Your task to perform on an android device: manage bookmarks in the chrome app Image 0: 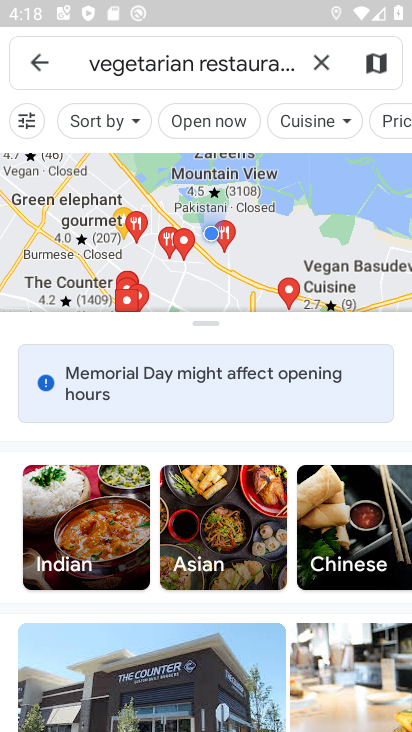
Step 0: drag from (243, 669) to (253, 206)
Your task to perform on an android device: manage bookmarks in the chrome app Image 1: 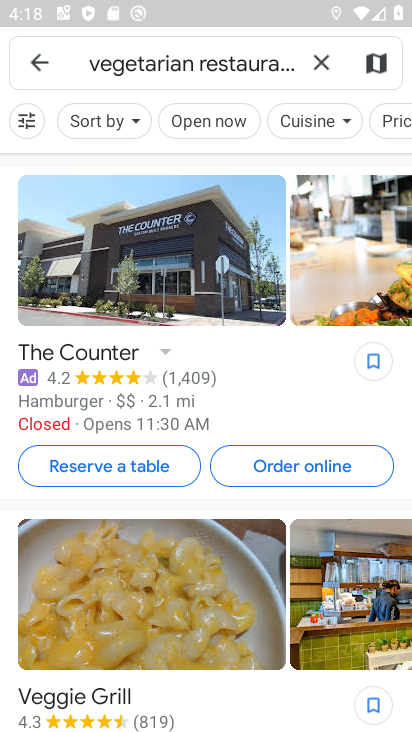
Step 1: drag from (221, 651) to (229, 218)
Your task to perform on an android device: manage bookmarks in the chrome app Image 2: 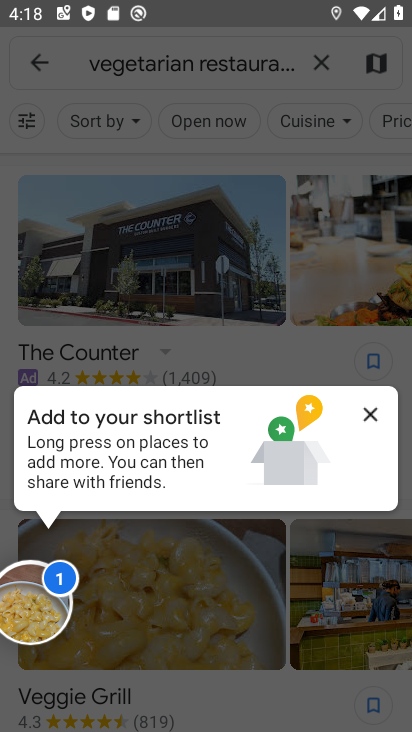
Step 2: click (367, 412)
Your task to perform on an android device: manage bookmarks in the chrome app Image 3: 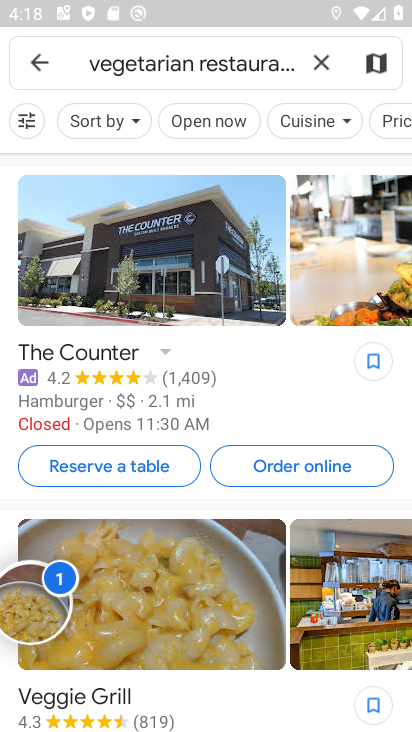
Step 3: task complete